Your task to perform on an android device: Show me recent news Image 0: 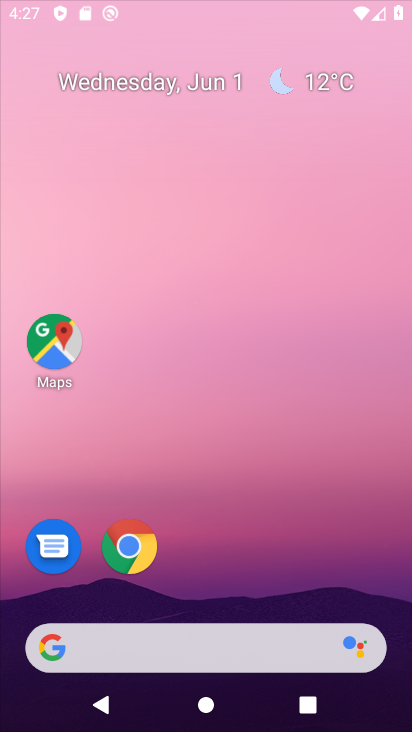
Step 0: drag from (260, 302) to (260, 38)
Your task to perform on an android device: Show me recent news Image 1: 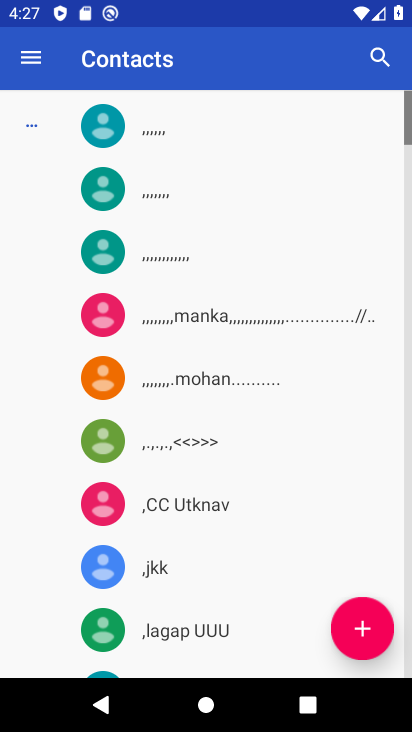
Step 1: press back button
Your task to perform on an android device: Show me recent news Image 2: 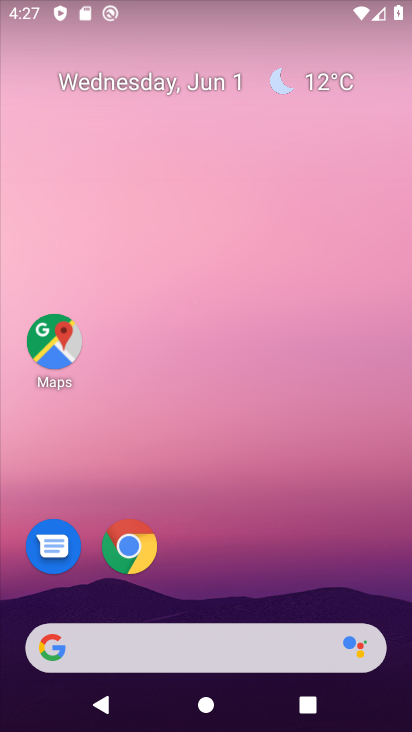
Step 2: drag from (246, 567) to (248, 34)
Your task to perform on an android device: Show me recent news Image 3: 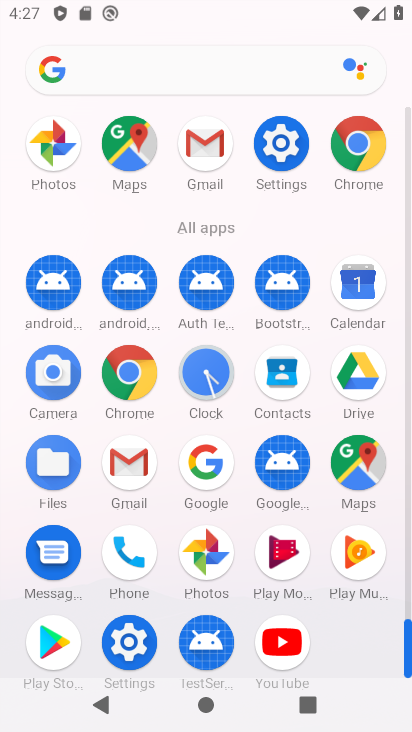
Step 3: click (356, 137)
Your task to perform on an android device: Show me recent news Image 4: 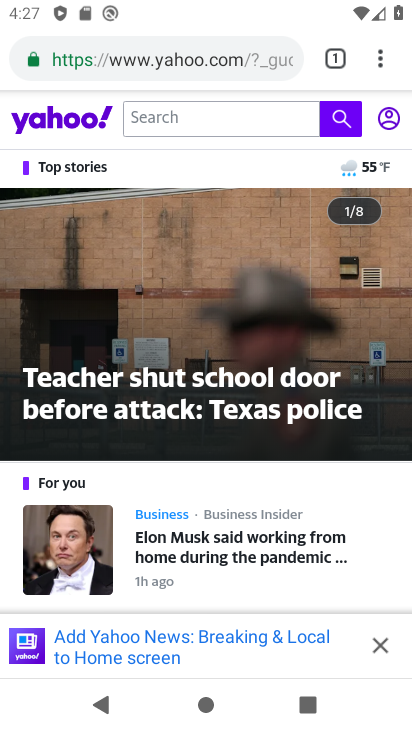
Step 4: click (187, 71)
Your task to perform on an android device: Show me recent news Image 5: 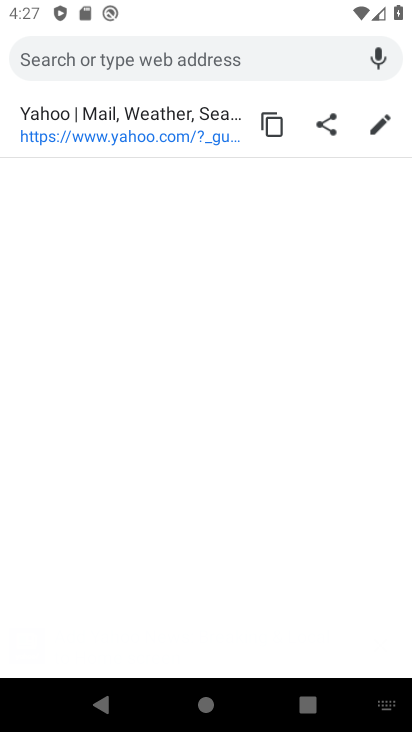
Step 5: type "Show me recent news"
Your task to perform on an android device: Show me recent news Image 6: 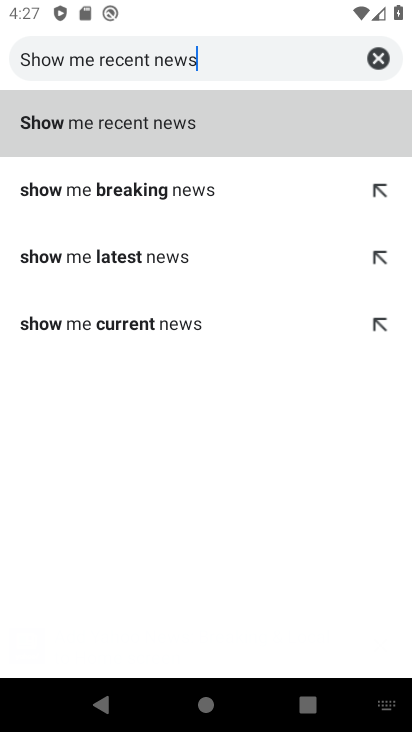
Step 6: type ""
Your task to perform on an android device: Show me recent news Image 7: 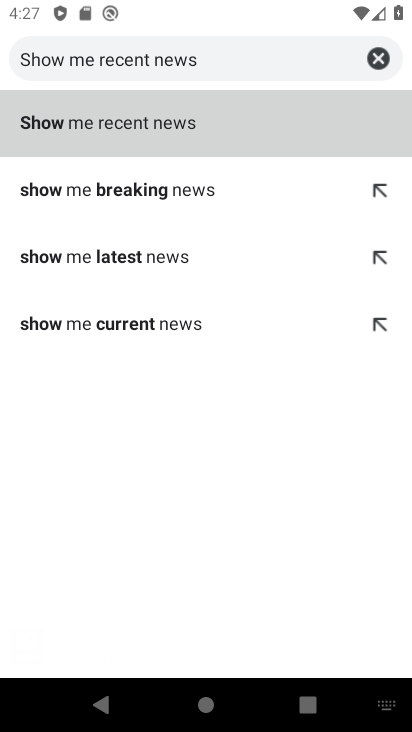
Step 7: click (182, 140)
Your task to perform on an android device: Show me recent news Image 8: 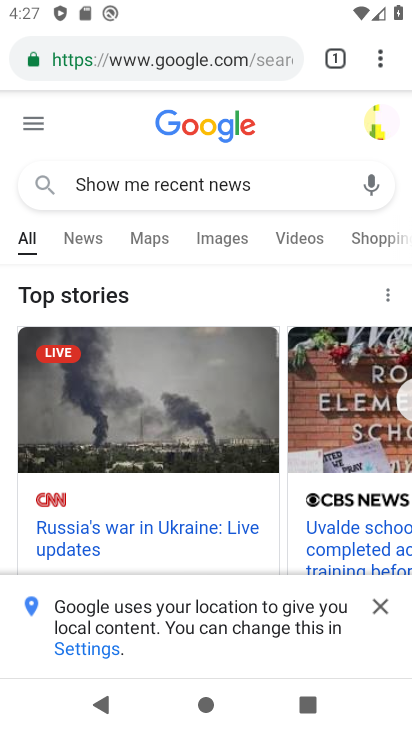
Step 8: task complete